Your task to perform on an android device: Show me recent news Image 0: 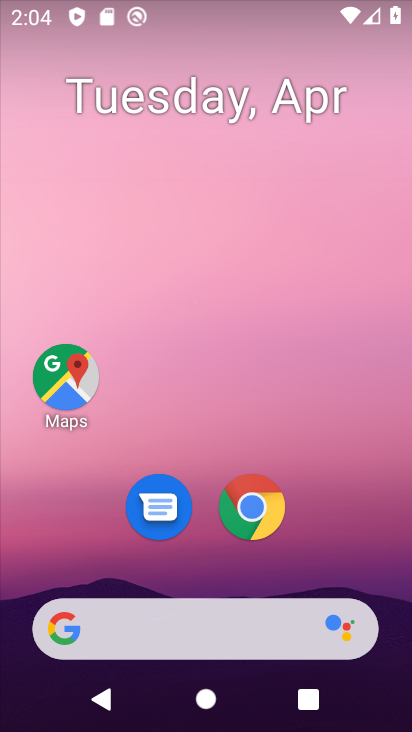
Step 0: click (74, 385)
Your task to perform on an android device: Show me recent news Image 1: 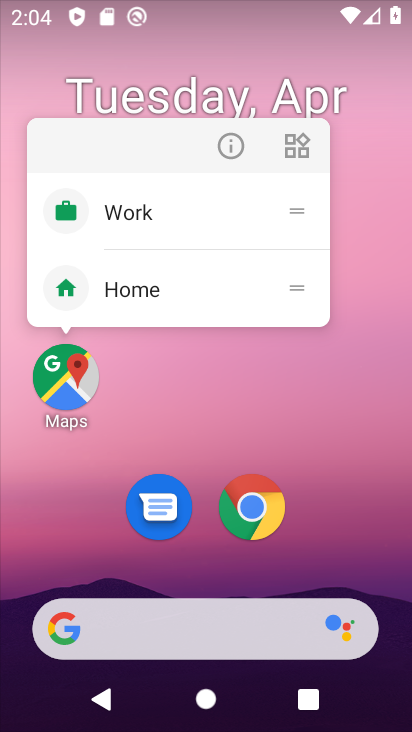
Step 1: click (61, 388)
Your task to perform on an android device: Show me recent news Image 2: 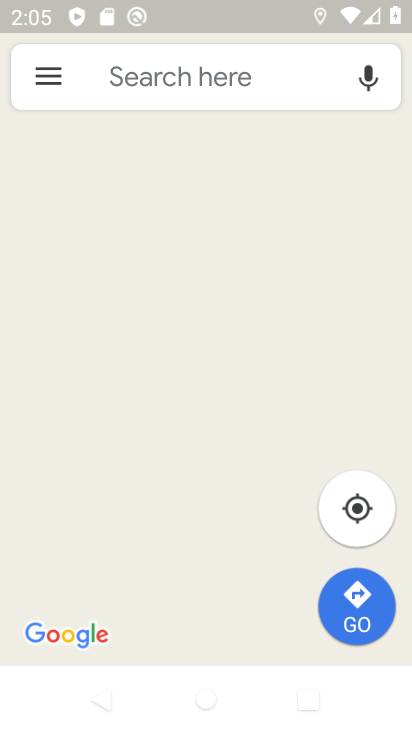
Step 2: press home button
Your task to perform on an android device: Show me recent news Image 3: 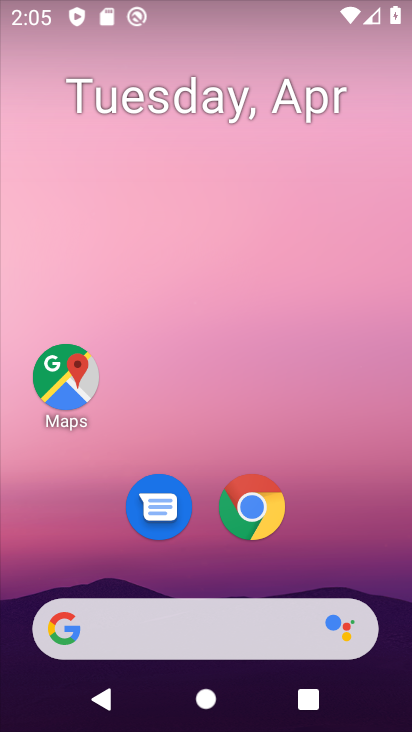
Step 3: click (328, 152)
Your task to perform on an android device: Show me recent news Image 4: 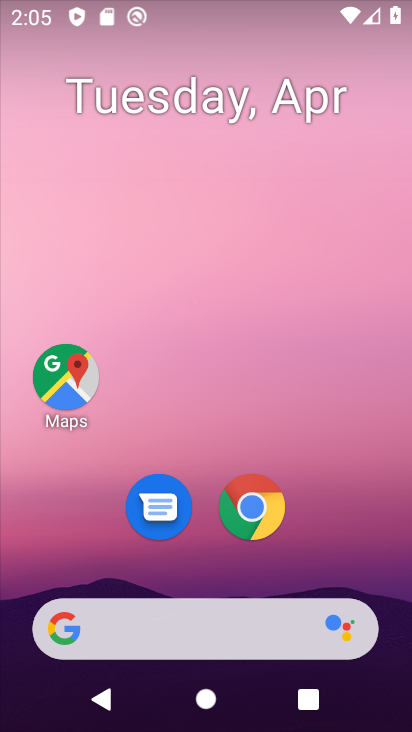
Step 4: drag from (238, 283) to (250, 162)
Your task to perform on an android device: Show me recent news Image 5: 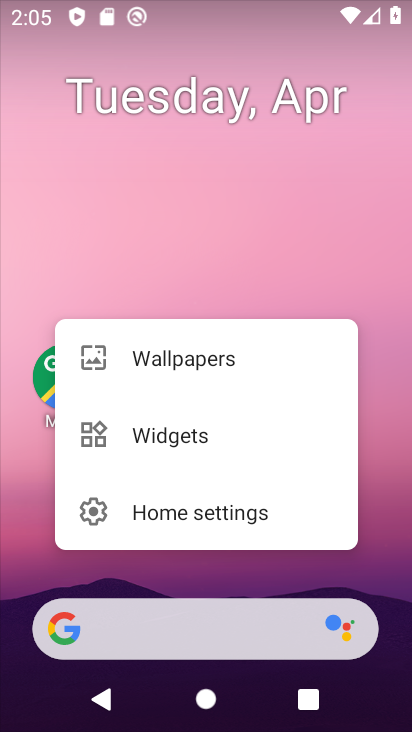
Step 5: click (314, 257)
Your task to perform on an android device: Show me recent news Image 6: 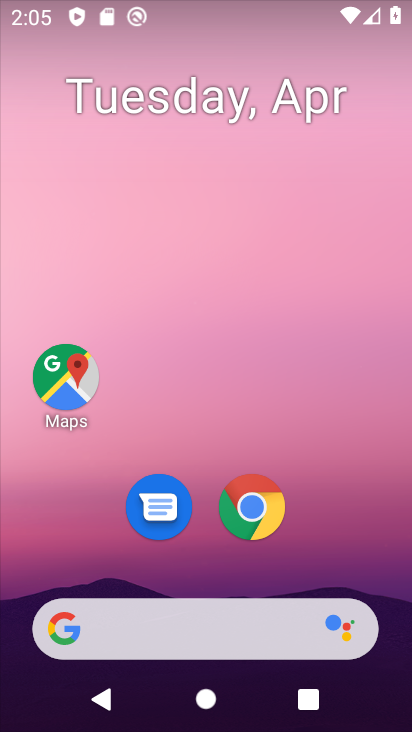
Step 6: click (308, 69)
Your task to perform on an android device: Show me recent news Image 7: 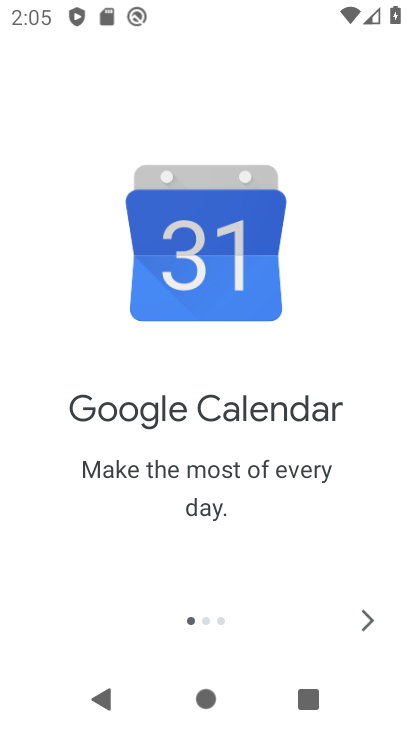
Step 7: press home button
Your task to perform on an android device: Show me recent news Image 8: 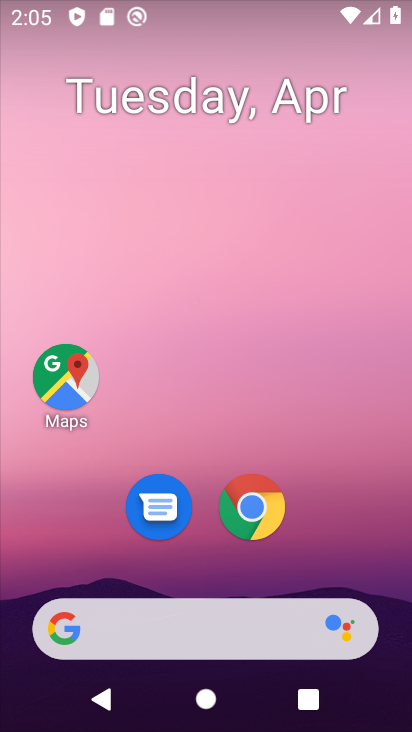
Step 8: drag from (170, 324) to (203, 169)
Your task to perform on an android device: Show me recent news Image 9: 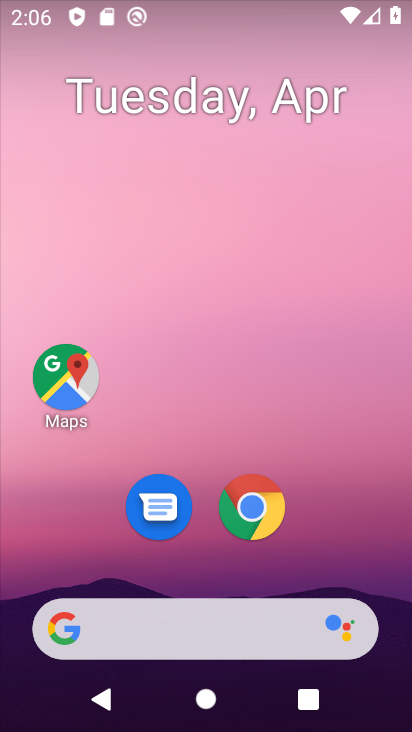
Step 9: drag from (250, 588) to (282, 127)
Your task to perform on an android device: Show me recent news Image 10: 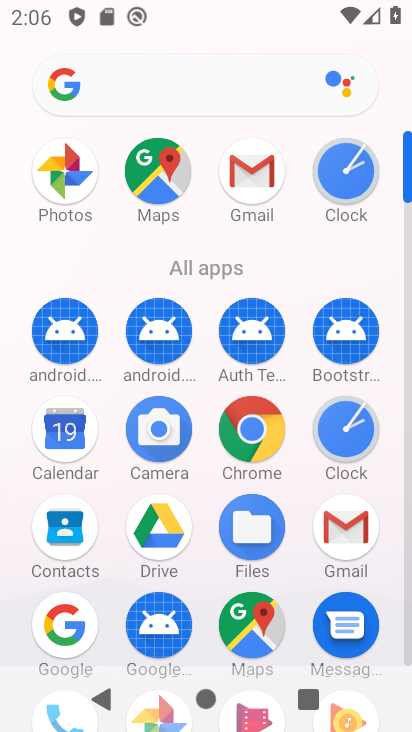
Step 10: click (79, 626)
Your task to perform on an android device: Show me recent news Image 11: 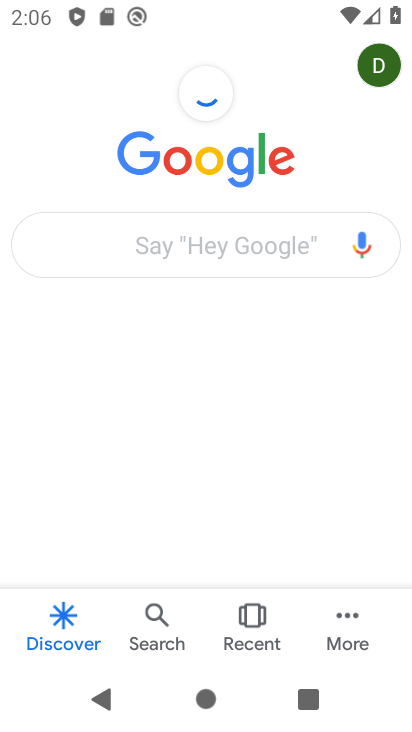
Step 11: click (192, 252)
Your task to perform on an android device: Show me recent news Image 12: 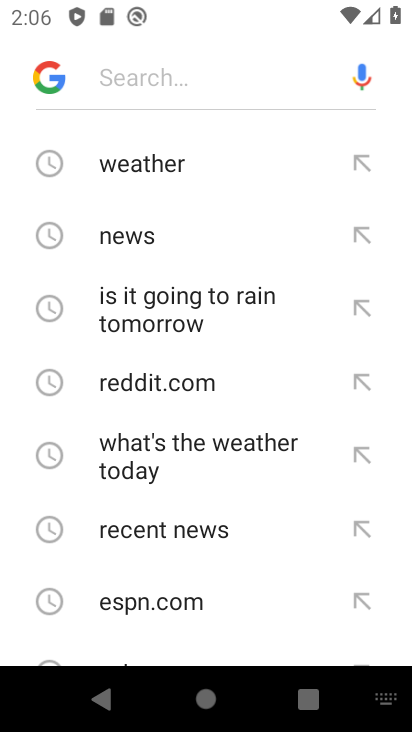
Step 12: type "recent news"
Your task to perform on an android device: Show me recent news Image 13: 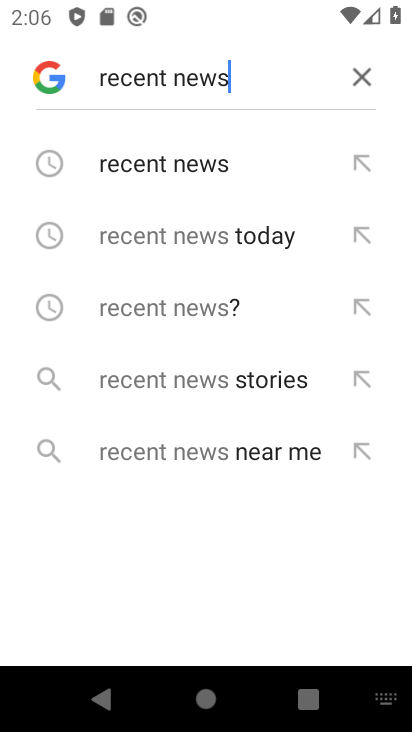
Step 13: task complete